Your task to perform on an android device: Open the calendar and show me this week's events? Image 0: 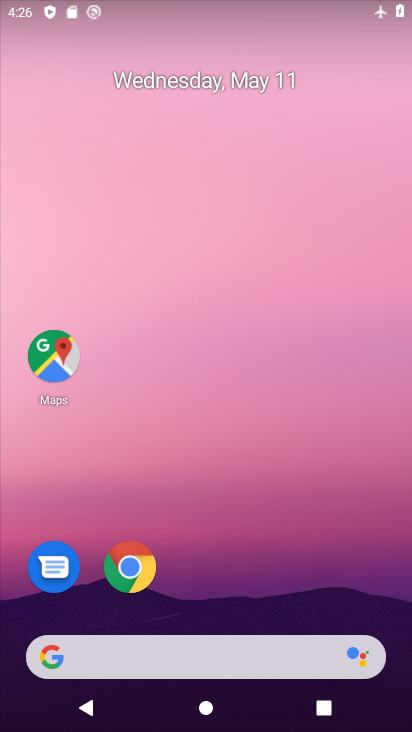
Step 0: drag from (217, 587) to (245, 284)
Your task to perform on an android device: Open the calendar and show me this week's events? Image 1: 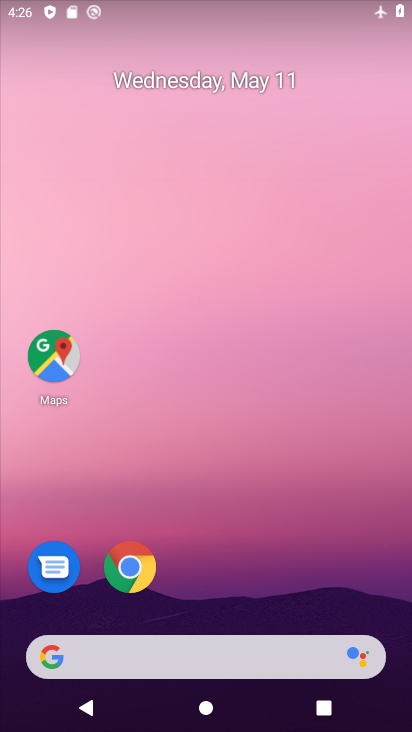
Step 1: drag from (204, 614) to (256, 312)
Your task to perform on an android device: Open the calendar and show me this week's events? Image 2: 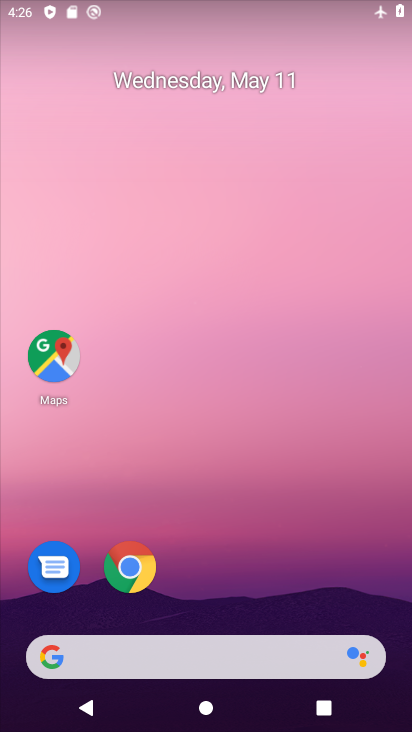
Step 2: drag from (195, 607) to (208, 159)
Your task to perform on an android device: Open the calendar and show me this week's events? Image 3: 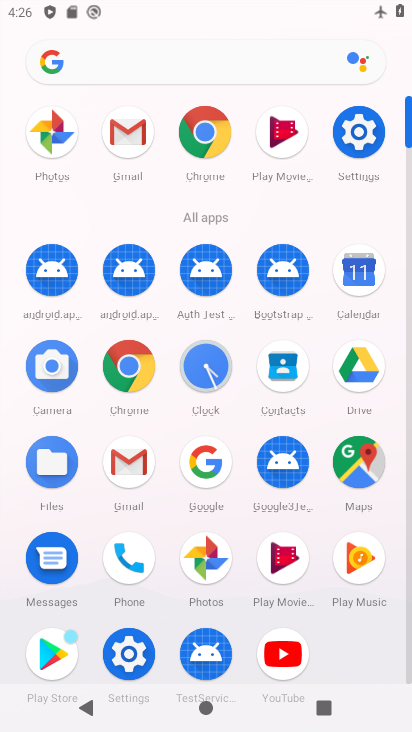
Step 3: click (328, 255)
Your task to perform on an android device: Open the calendar and show me this week's events? Image 4: 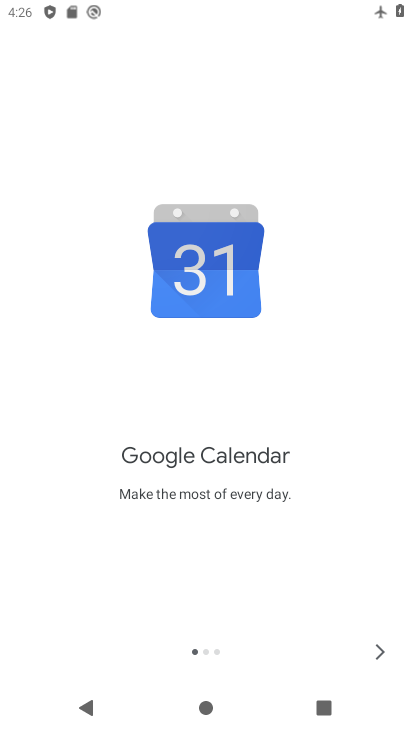
Step 4: click (376, 649)
Your task to perform on an android device: Open the calendar and show me this week's events? Image 5: 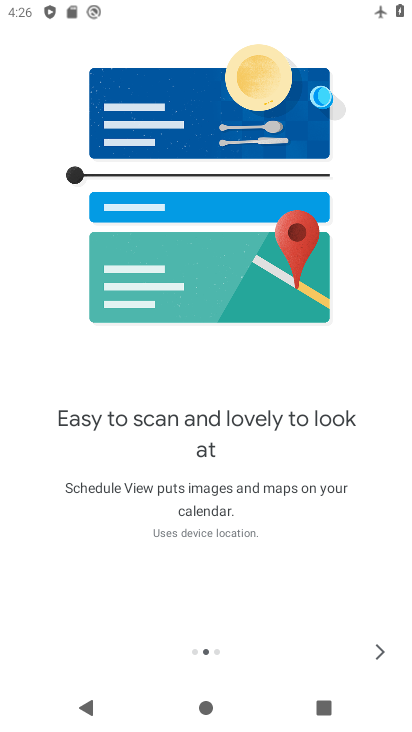
Step 5: click (376, 649)
Your task to perform on an android device: Open the calendar and show me this week's events? Image 6: 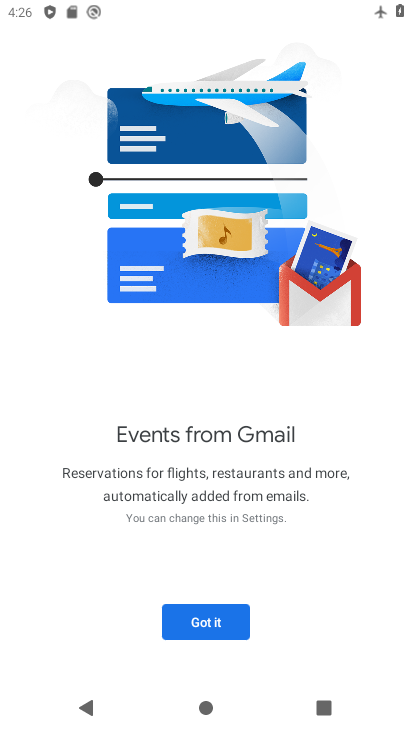
Step 6: click (376, 649)
Your task to perform on an android device: Open the calendar and show me this week's events? Image 7: 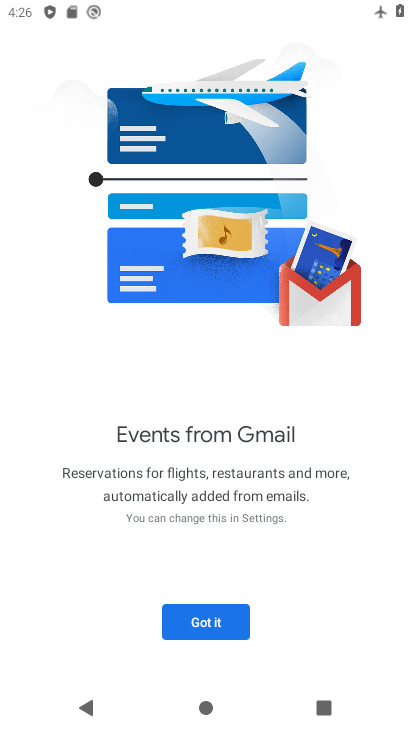
Step 7: click (224, 620)
Your task to perform on an android device: Open the calendar and show me this week's events? Image 8: 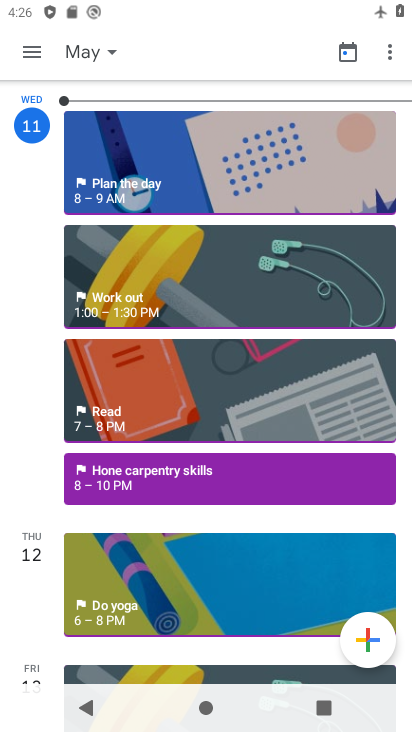
Step 8: click (93, 52)
Your task to perform on an android device: Open the calendar and show me this week's events? Image 9: 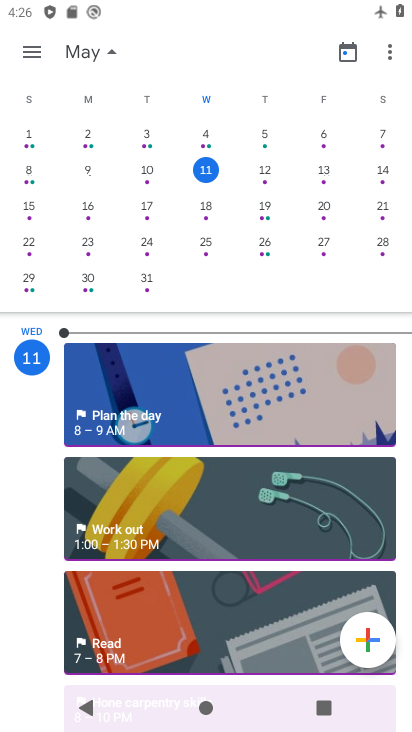
Step 9: click (323, 178)
Your task to perform on an android device: Open the calendar and show me this week's events? Image 10: 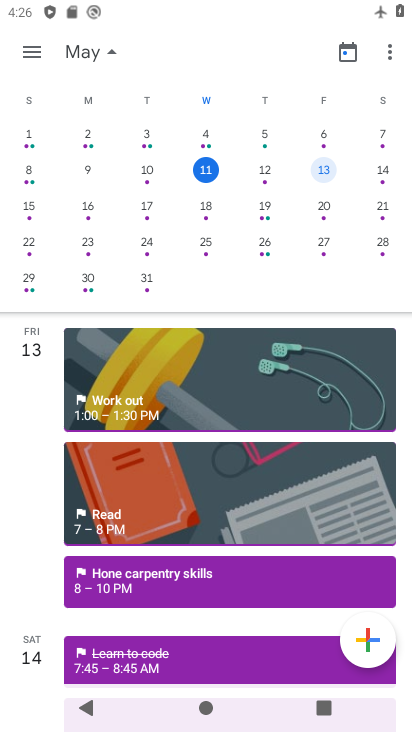
Step 10: task complete